Your task to perform on an android device: Open notification settings Image 0: 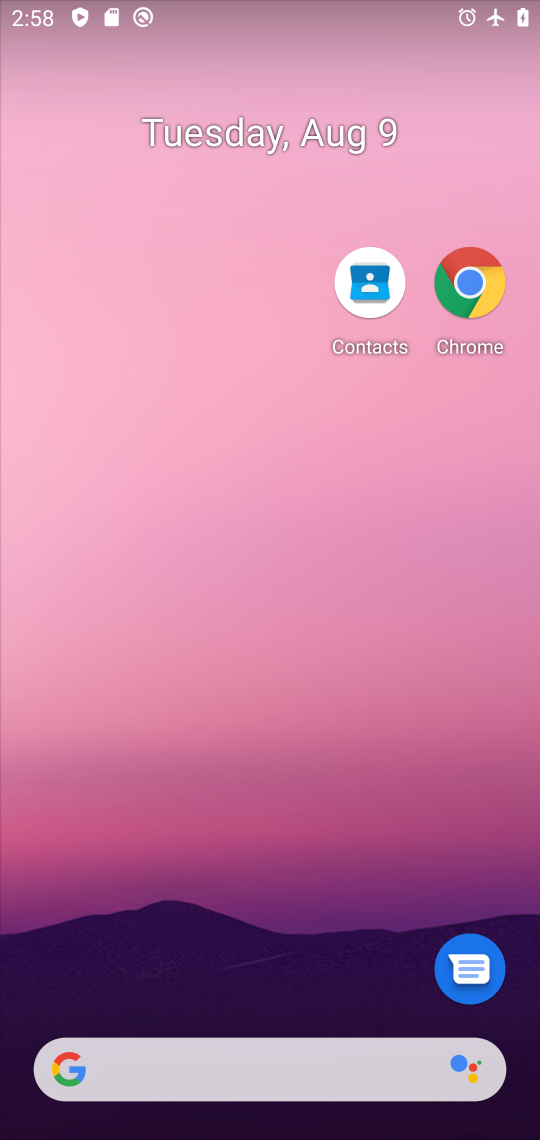
Step 0: drag from (285, 932) to (334, 401)
Your task to perform on an android device: Open notification settings Image 1: 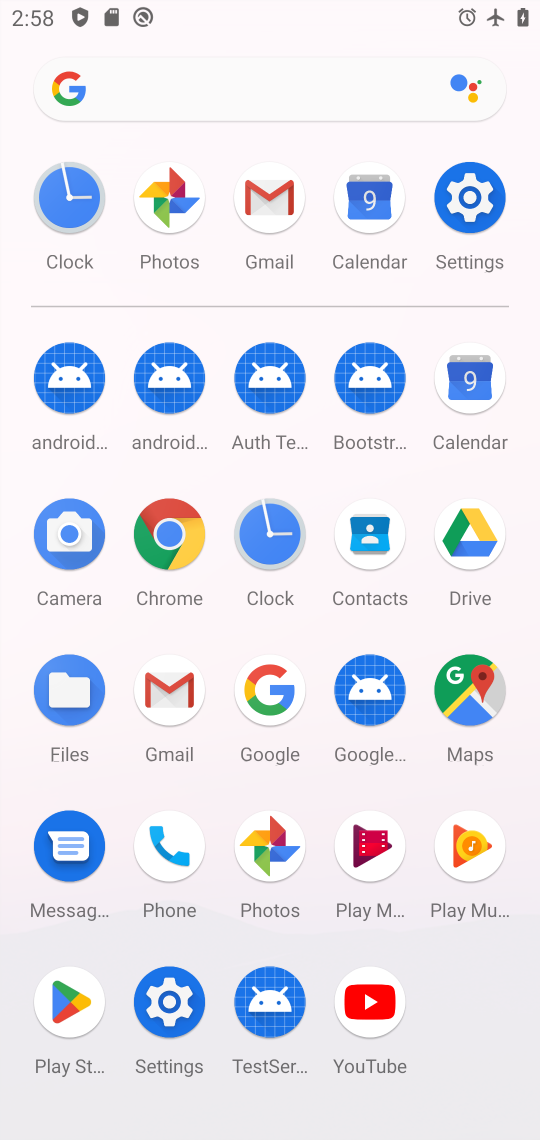
Step 1: click (459, 204)
Your task to perform on an android device: Open notification settings Image 2: 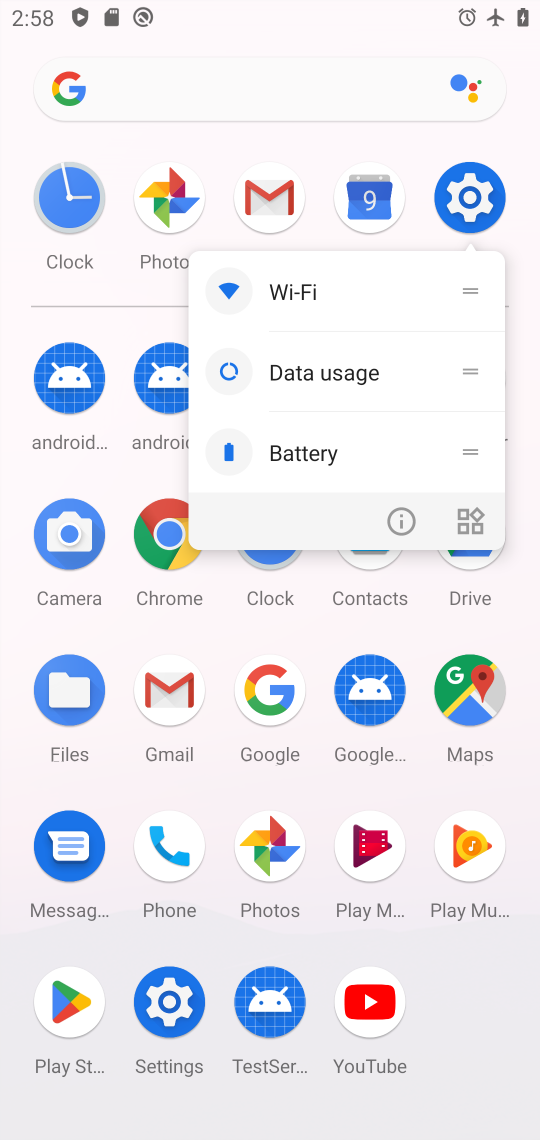
Step 2: click (393, 527)
Your task to perform on an android device: Open notification settings Image 3: 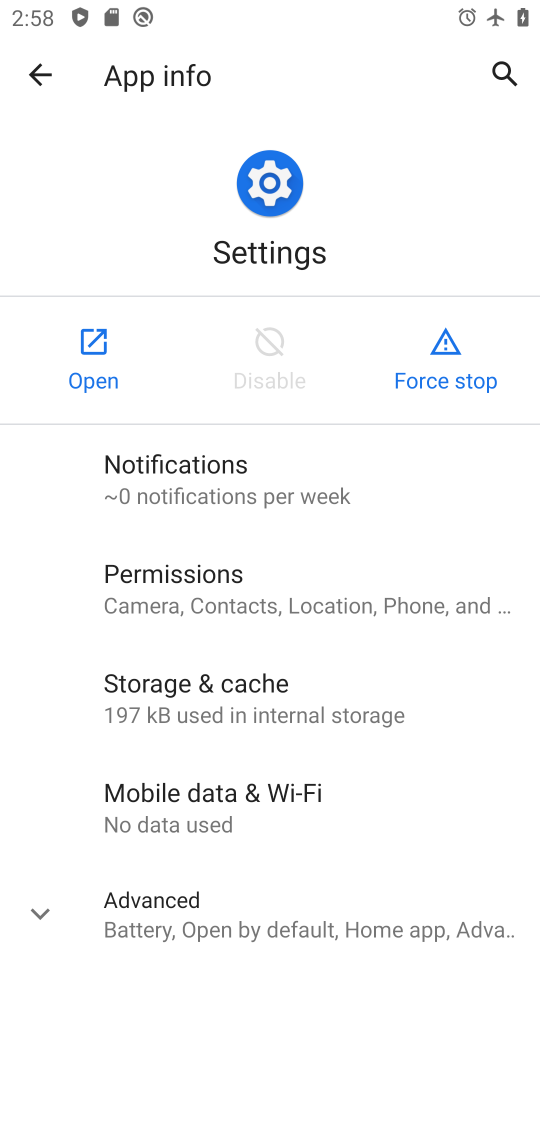
Step 3: click (76, 342)
Your task to perform on an android device: Open notification settings Image 4: 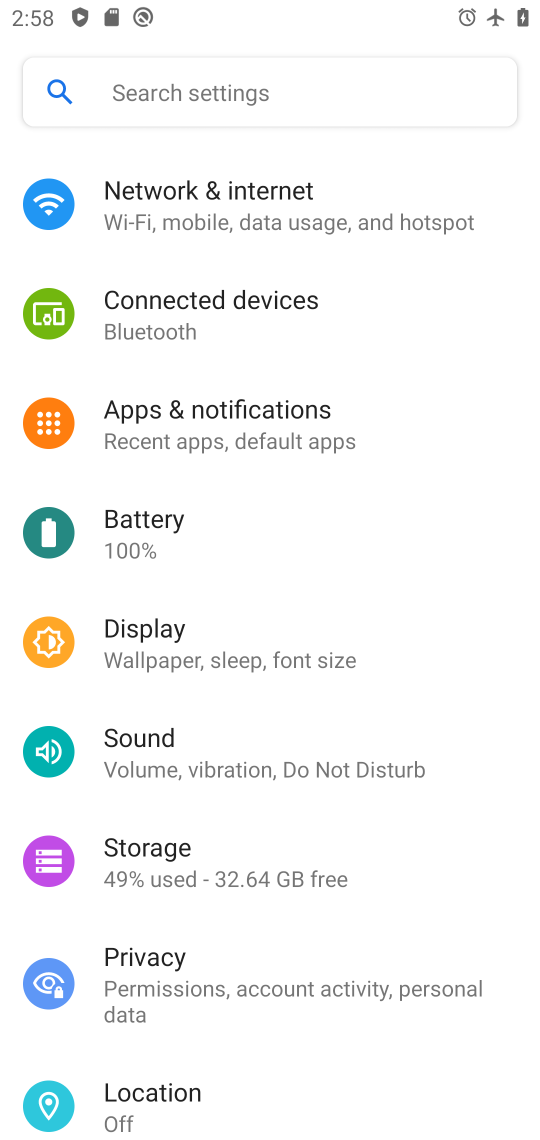
Step 4: click (226, 423)
Your task to perform on an android device: Open notification settings Image 5: 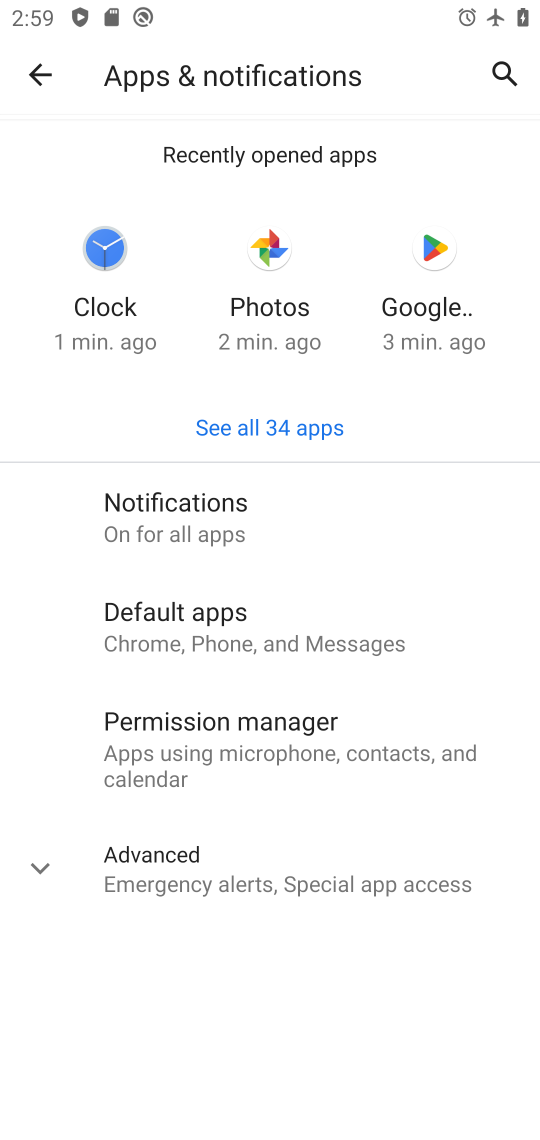
Step 5: click (278, 511)
Your task to perform on an android device: Open notification settings Image 6: 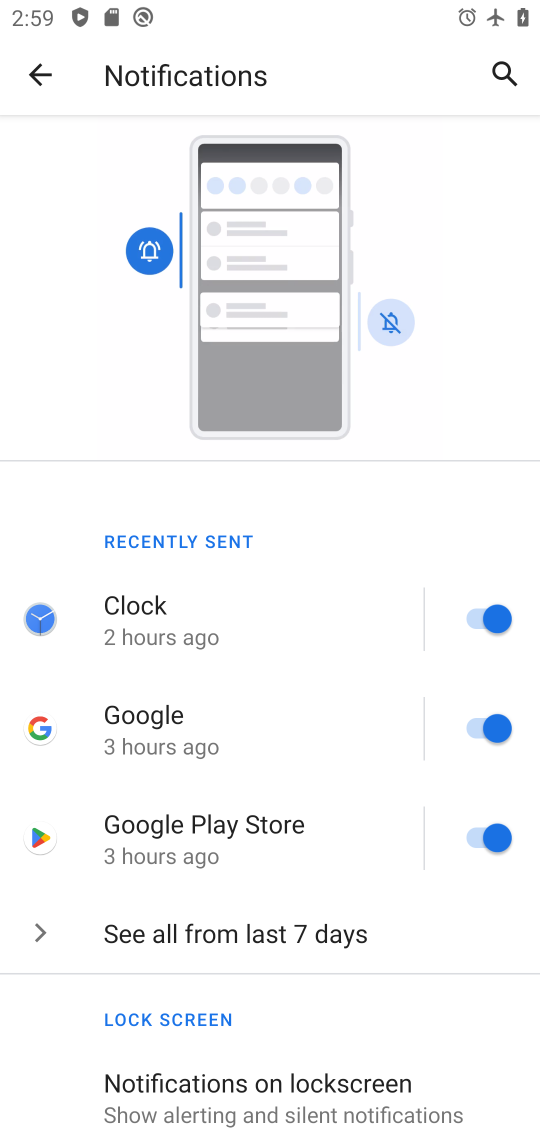
Step 6: task complete